Your task to perform on an android device: Open Amazon Image 0: 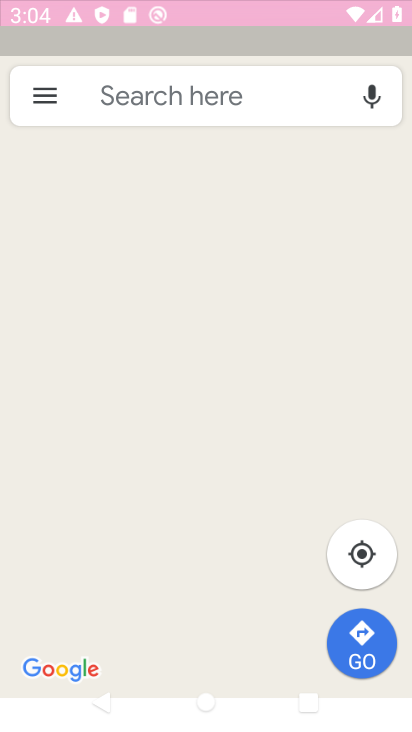
Step 0: click (203, 109)
Your task to perform on an android device: Open Amazon Image 1: 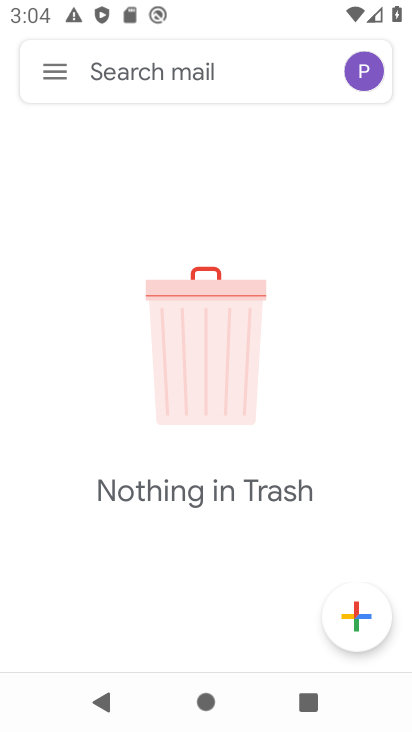
Step 1: press home button
Your task to perform on an android device: Open Amazon Image 2: 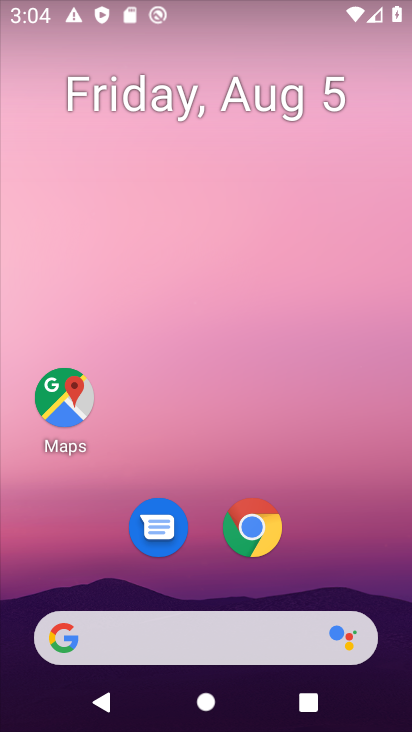
Step 2: click (257, 530)
Your task to perform on an android device: Open Amazon Image 3: 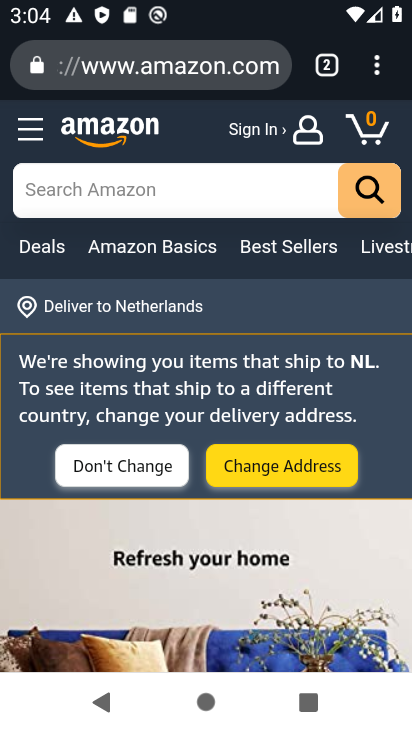
Step 3: task complete